Your task to perform on an android device: What's the weather? Image 0: 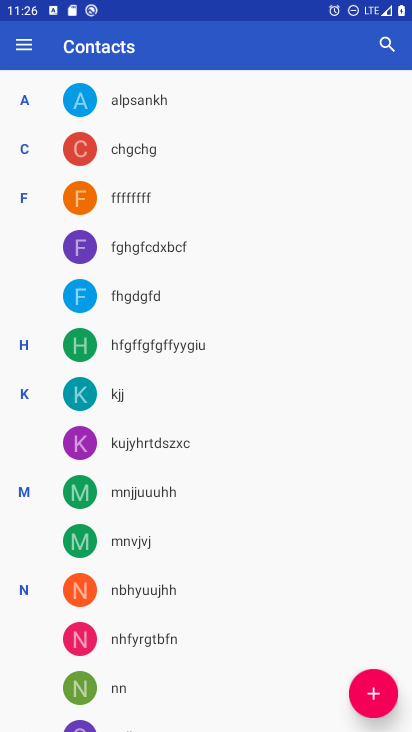
Step 0: press home button
Your task to perform on an android device: What's the weather? Image 1: 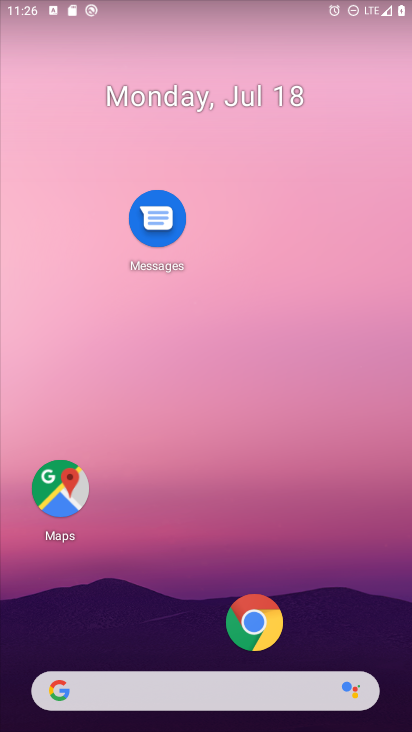
Step 1: drag from (223, 639) to (222, 223)
Your task to perform on an android device: What's the weather? Image 2: 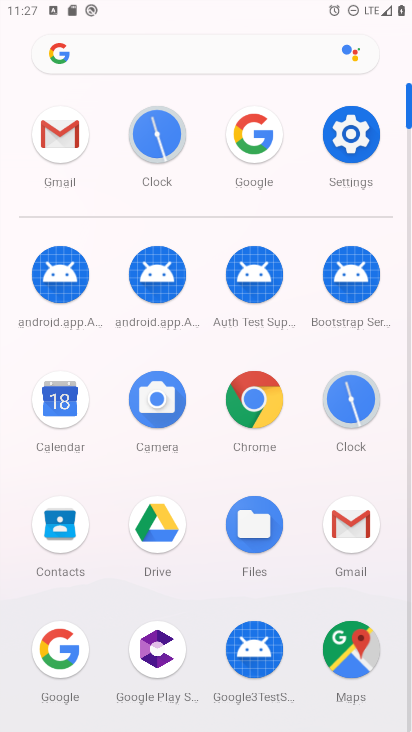
Step 2: click (74, 654)
Your task to perform on an android device: What's the weather? Image 3: 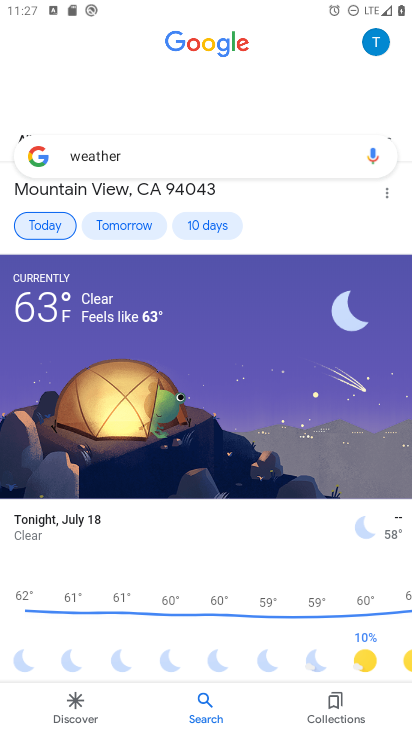
Step 3: task complete